Your task to perform on an android device: turn off javascript in the chrome app Image 0: 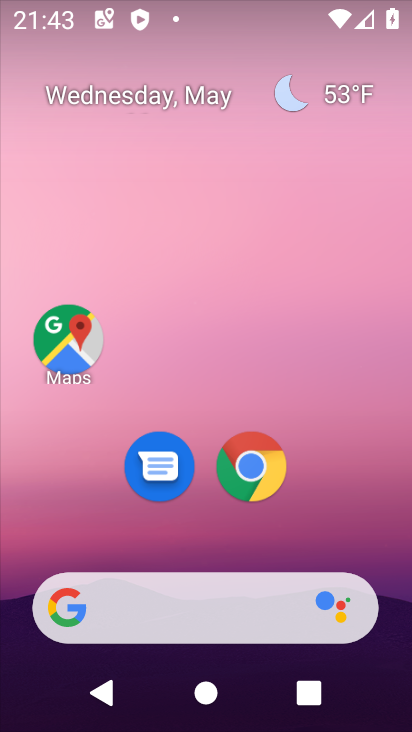
Step 0: drag from (193, 496) to (241, 117)
Your task to perform on an android device: turn off javascript in the chrome app Image 1: 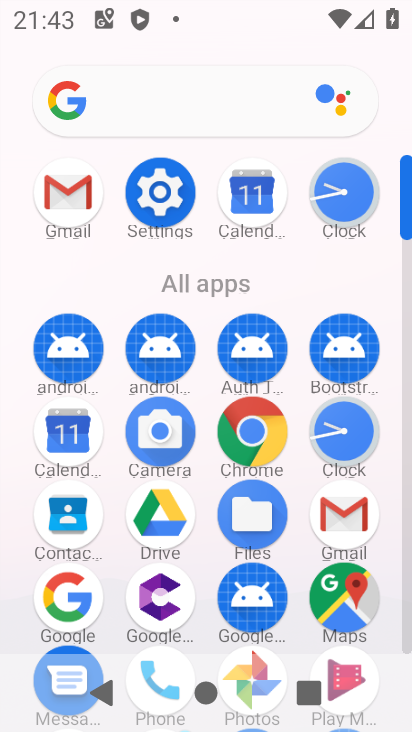
Step 1: drag from (189, 562) to (212, 130)
Your task to perform on an android device: turn off javascript in the chrome app Image 2: 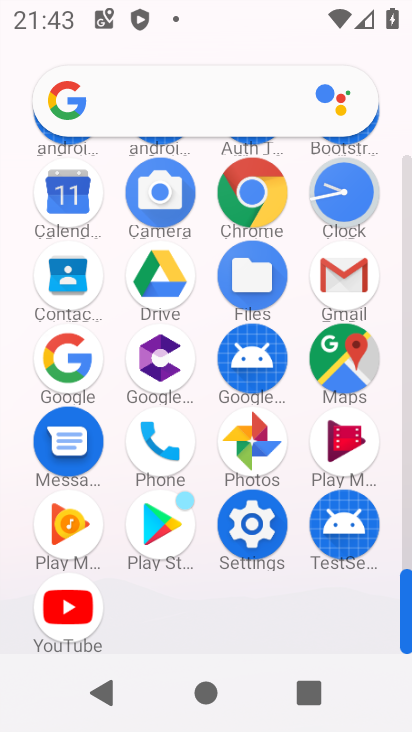
Step 2: click (257, 192)
Your task to perform on an android device: turn off javascript in the chrome app Image 3: 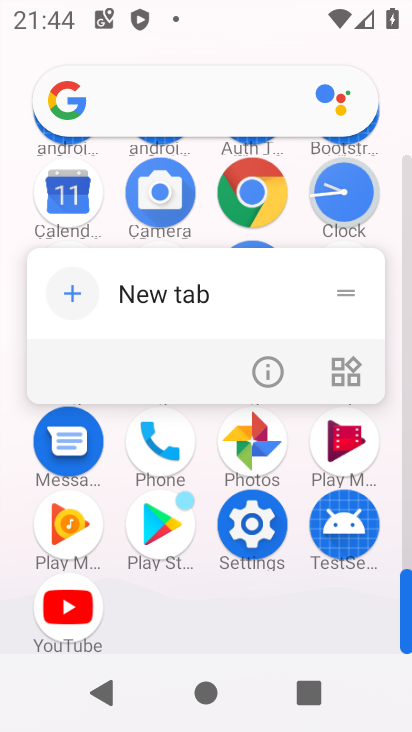
Step 3: click (267, 386)
Your task to perform on an android device: turn off javascript in the chrome app Image 4: 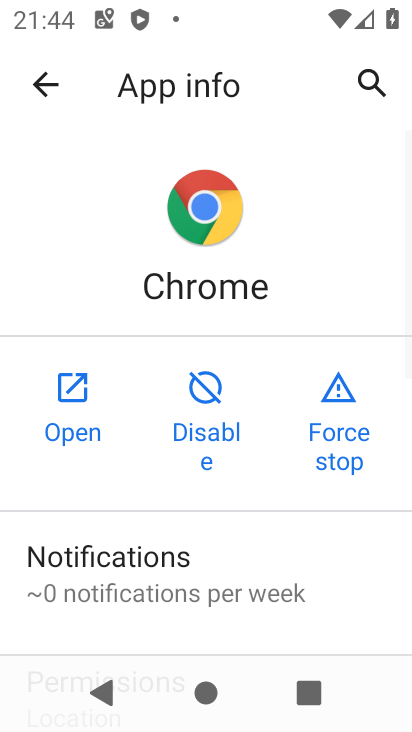
Step 4: click (77, 395)
Your task to perform on an android device: turn off javascript in the chrome app Image 5: 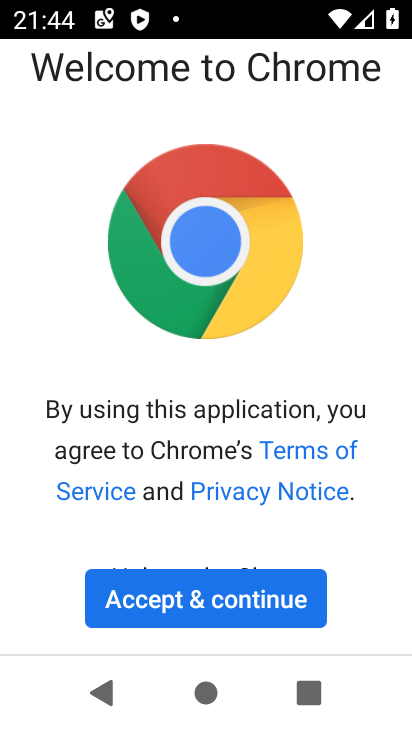
Step 5: click (187, 590)
Your task to perform on an android device: turn off javascript in the chrome app Image 6: 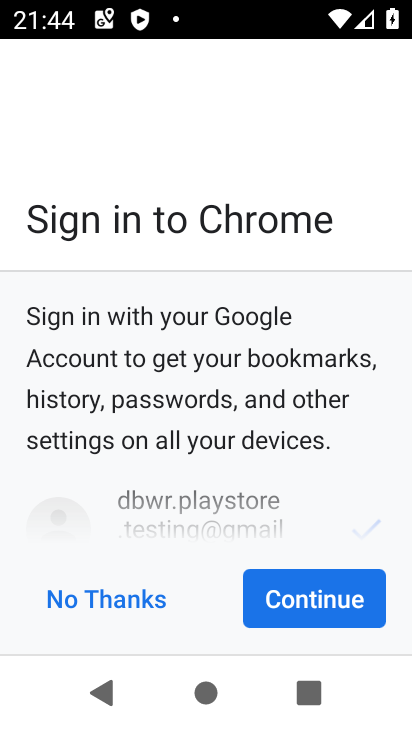
Step 6: click (89, 578)
Your task to perform on an android device: turn off javascript in the chrome app Image 7: 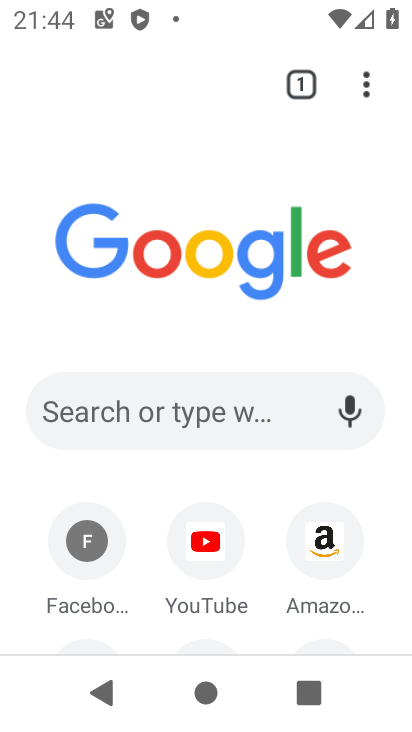
Step 7: drag from (380, 76) to (176, 525)
Your task to perform on an android device: turn off javascript in the chrome app Image 8: 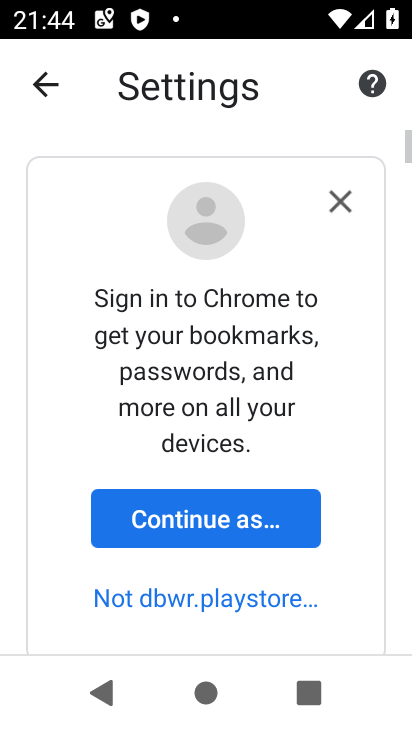
Step 8: drag from (245, 557) to (372, 82)
Your task to perform on an android device: turn off javascript in the chrome app Image 9: 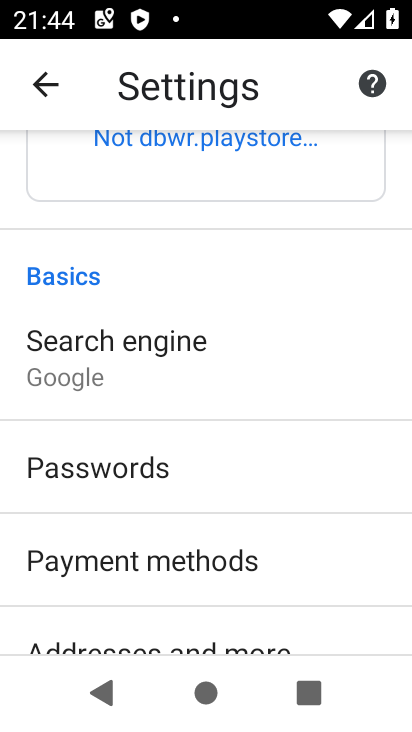
Step 9: drag from (202, 537) to (352, 3)
Your task to perform on an android device: turn off javascript in the chrome app Image 10: 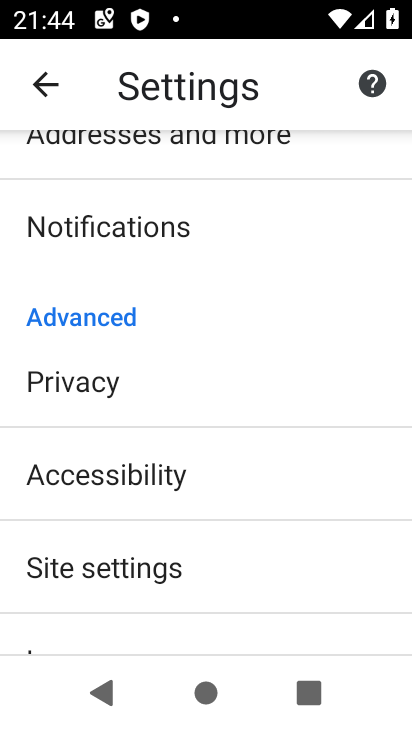
Step 10: drag from (161, 569) to (294, 82)
Your task to perform on an android device: turn off javascript in the chrome app Image 11: 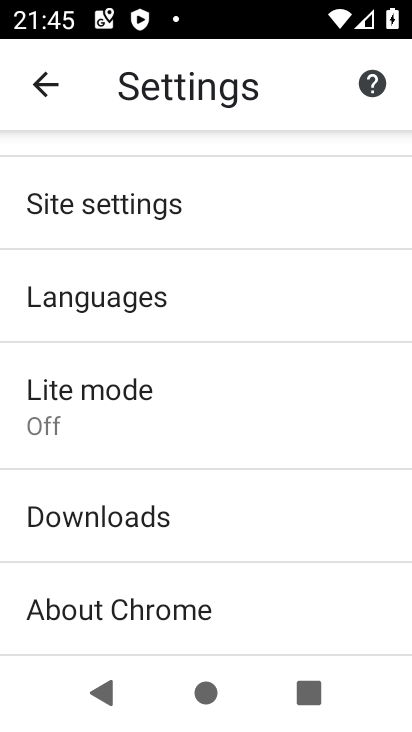
Step 11: click (145, 213)
Your task to perform on an android device: turn off javascript in the chrome app Image 12: 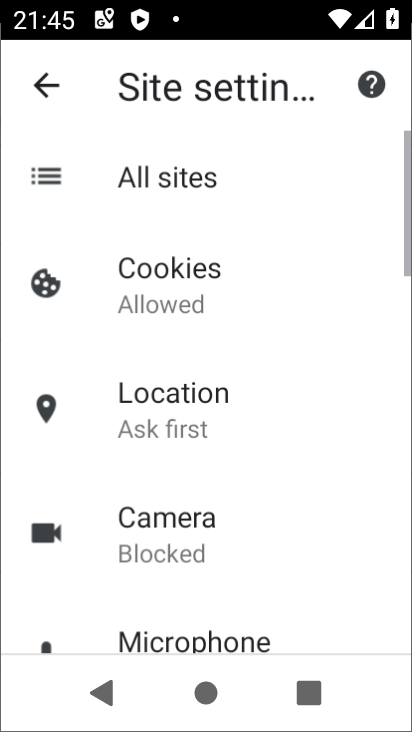
Step 12: drag from (174, 190) to (174, 484)
Your task to perform on an android device: turn off javascript in the chrome app Image 13: 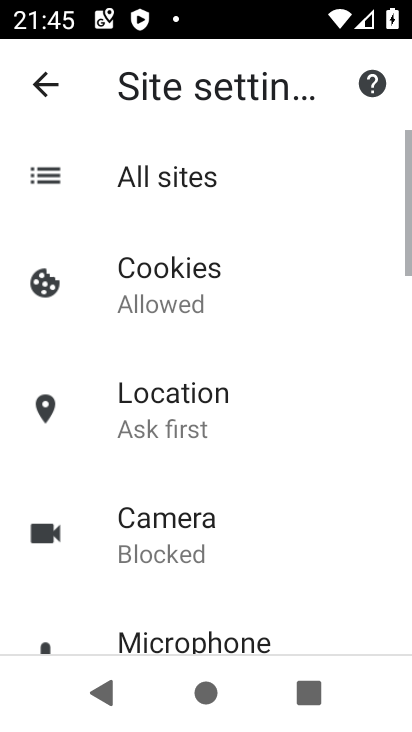
Step 13: drag from (211, 506) to (290, 144)
Your task to perform on an android device: turn off javascript in the chrome app Image 14: 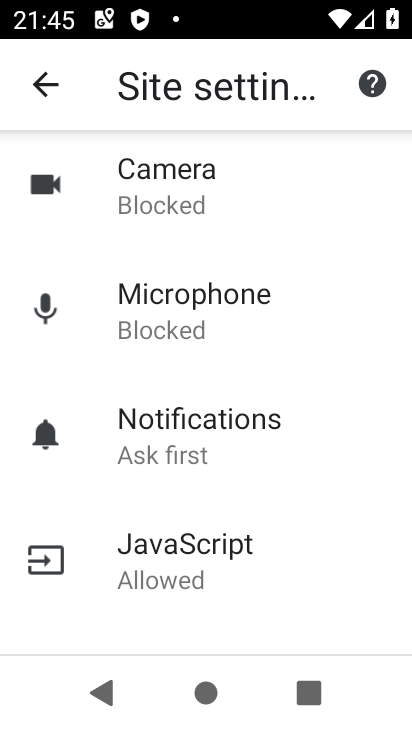
Step 14: click (190, 548)
Your task to perform on an android device: turn off javascript in the chrome app Image 15: 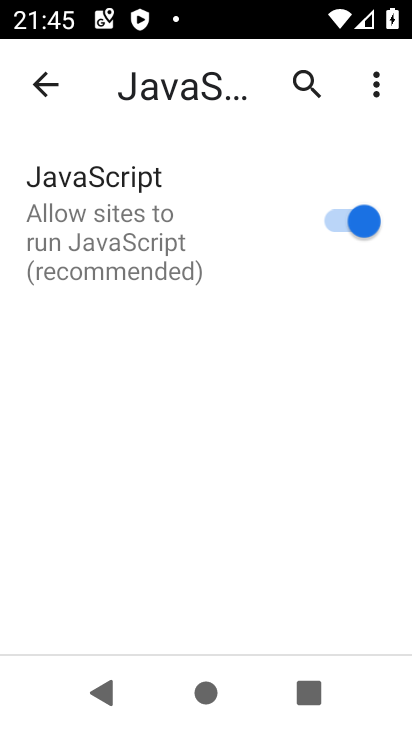
Step 15: click (346, 214)
Your task to perform on an android device: turn off javascript in the chrome app Image 16: 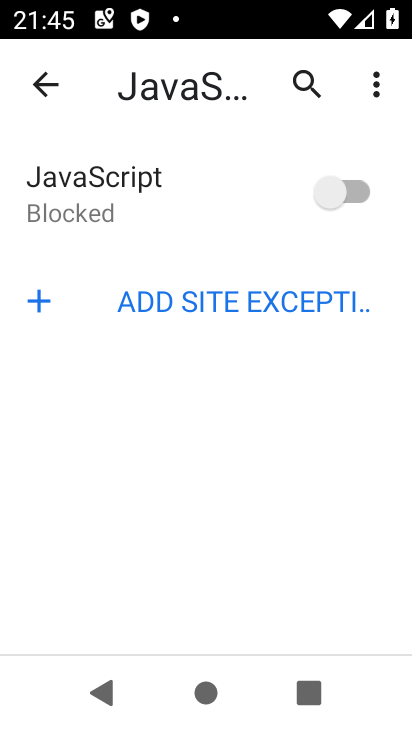
Step 16: task complete